Your task to perform on an android device: empty trash in the gmail app Image 0: 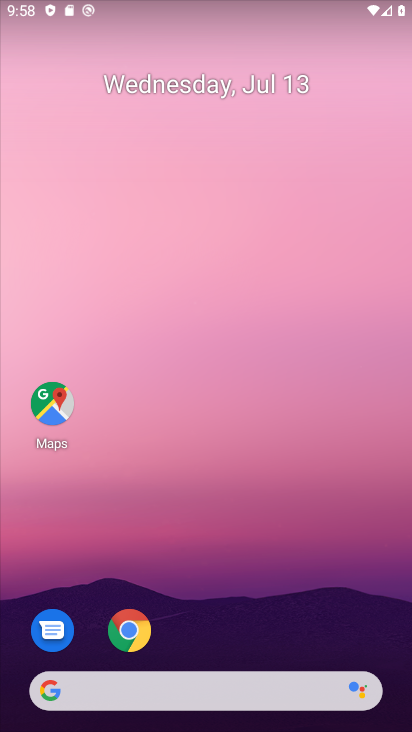
Step 0: drag from (279, 568) to (270, 31)
Your task to perform on an android device: empty trash in the gmail app Image 1: 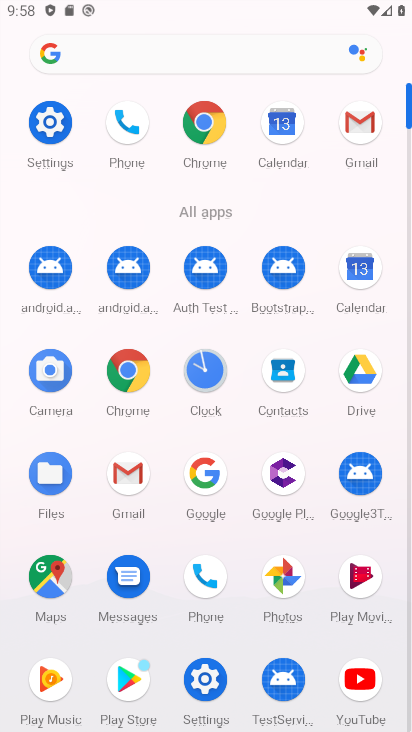
Step 1: click (357, 116)
Your task to perform on an android device: empty trash in the gmail app Image 2: 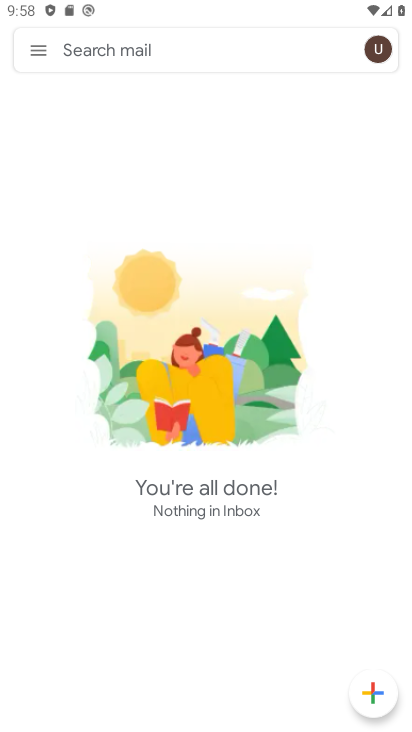
Step 2: click (38, 57)
Your task to perform on an android device: empty trash in the gmail app Image 3: 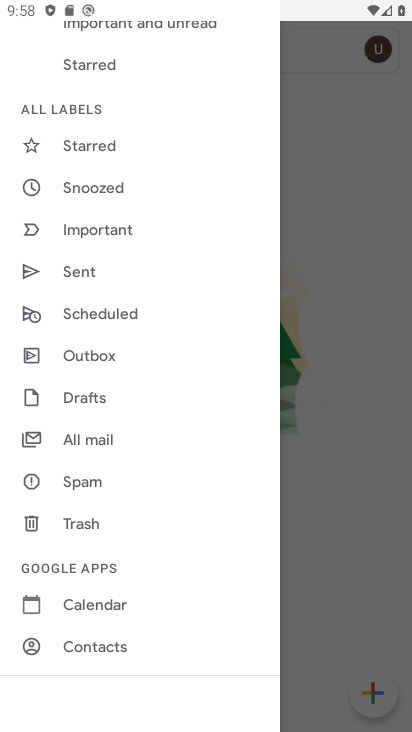
Step 3: click (92, 519)
Your task to perform on an android device: empty trash in the gmail app Image 4: 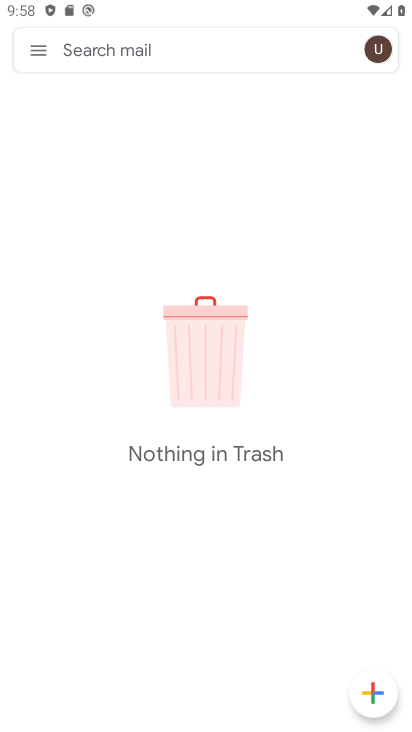
Step 4: task complete